Your task to perform on an android device: find snoozed emails in the gmail app Image 0: 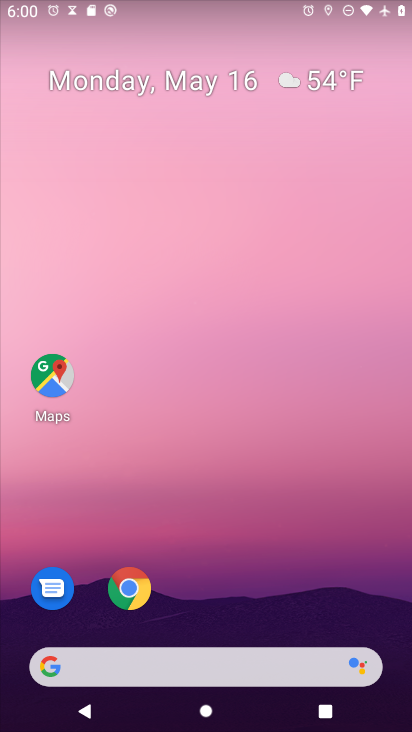
Step 0: drag from (256, 512) to (188, 21)
Your task to perform on an android device: find snoozed emails in the gmail app Image 1: 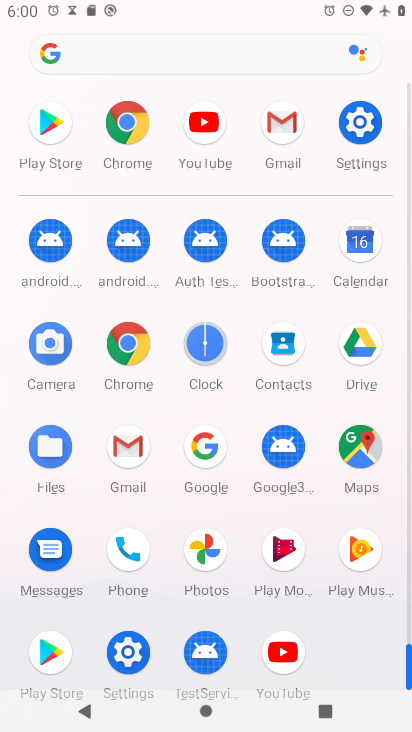
Step 1: drag from (18, 554) to (17, 235)
Your task to perform on an android device: find snoozed emails in the gmail app Image 2: 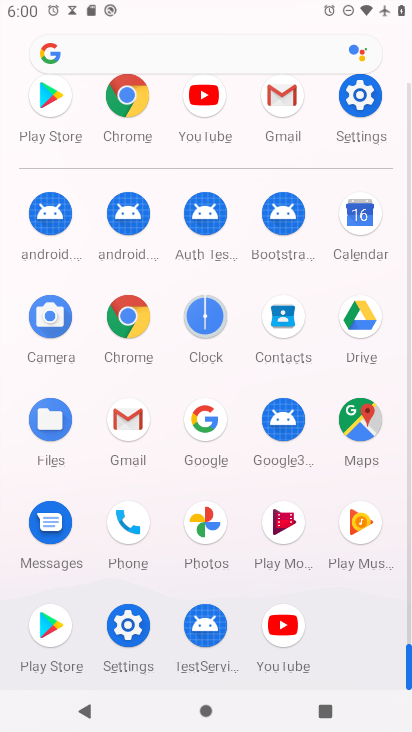
Step 2: click (132, 418)
Your task to perform on an android device: find snoozed emails in the gmail app Image 3: 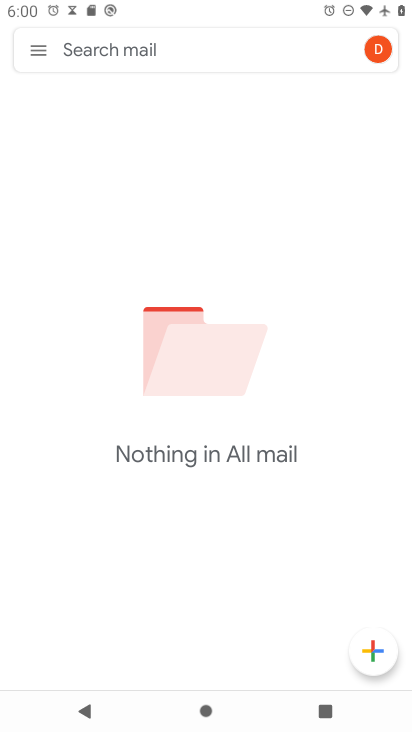
Step 3: click (44, 56)
Your task to perform on an android device: find snoozed emails in the gmail app Image 4: 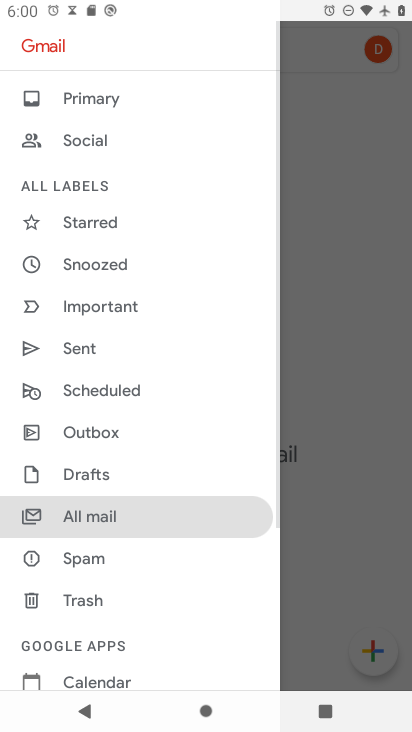
Step 4: drag from (144, 186) to (153, 245)
Your task to perform on an android device: find snoozed emails in the gmail app Image 5: 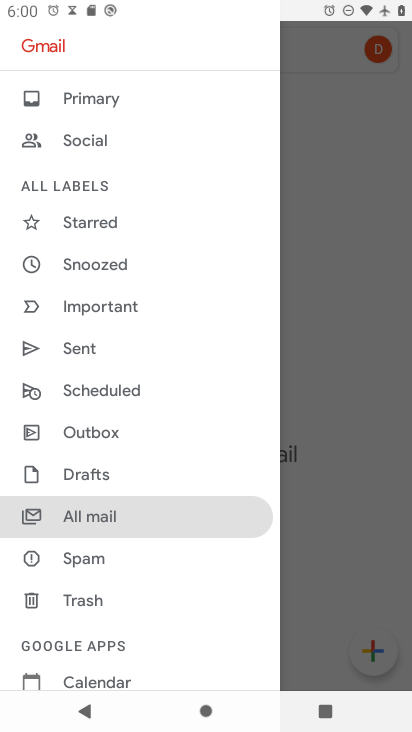
Step 5: click (168, 405)
Your task to perform on an android device: find snoozed emails in the gmail app Image 6: 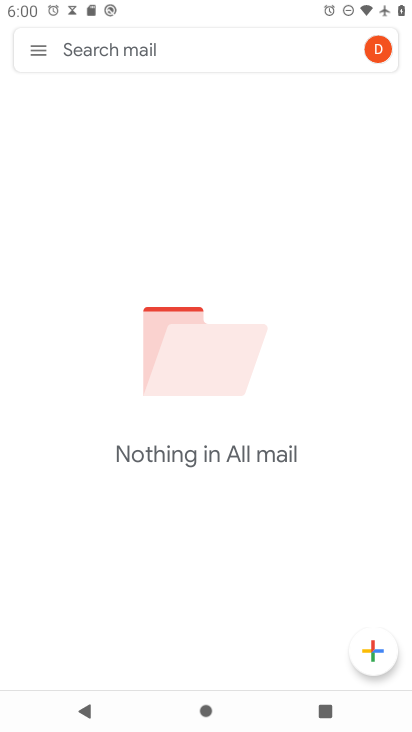
Step 6: click (92, 265)
Your task to perform on an android device: find snoozed emails in the gmail app Image 7: 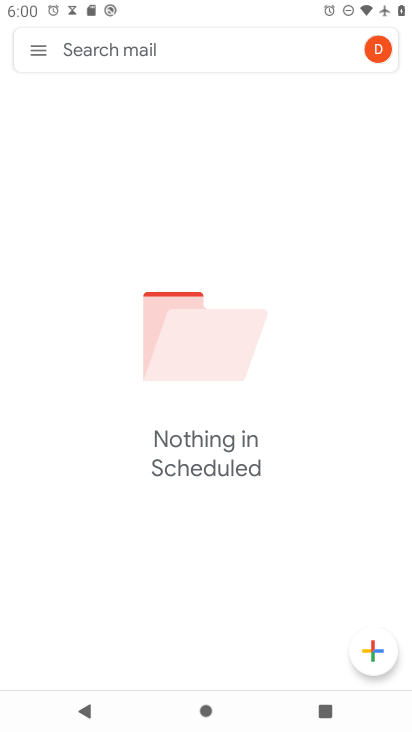
Step 7: click (43, 50)
Your task to perform on an android device: find snoozed emails in the gmail app Image 8: 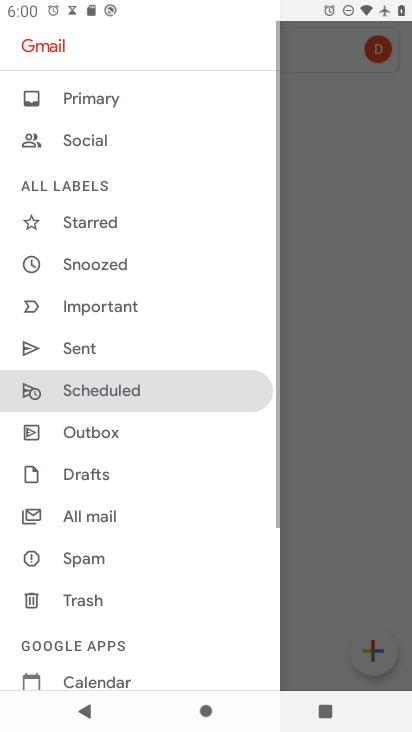
Step 8: click (115, 262)
Your task to perform on an android device: find snoozed emails in the gmail app Image 9: 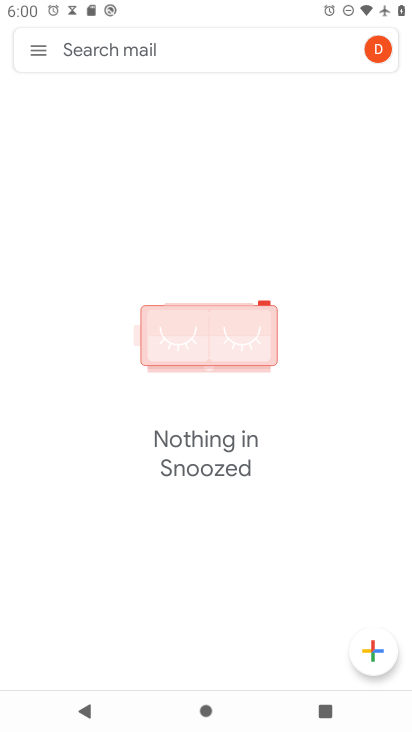
Step 9: task complete